Your task to perform on an android device: What's the news in Japan? Image 0: 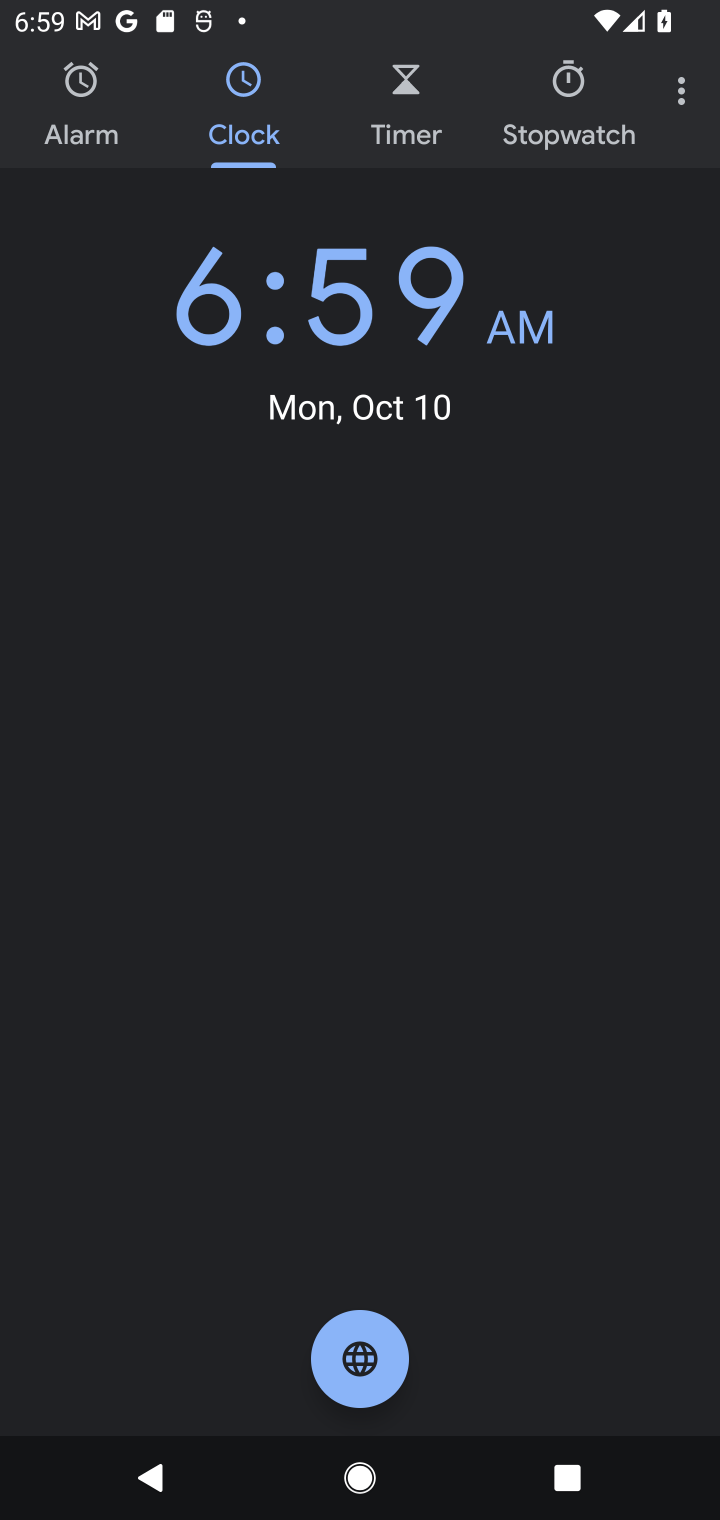
Step 0: press home button
Your task to perform on an android device: What's the news in Japan? Image 1: 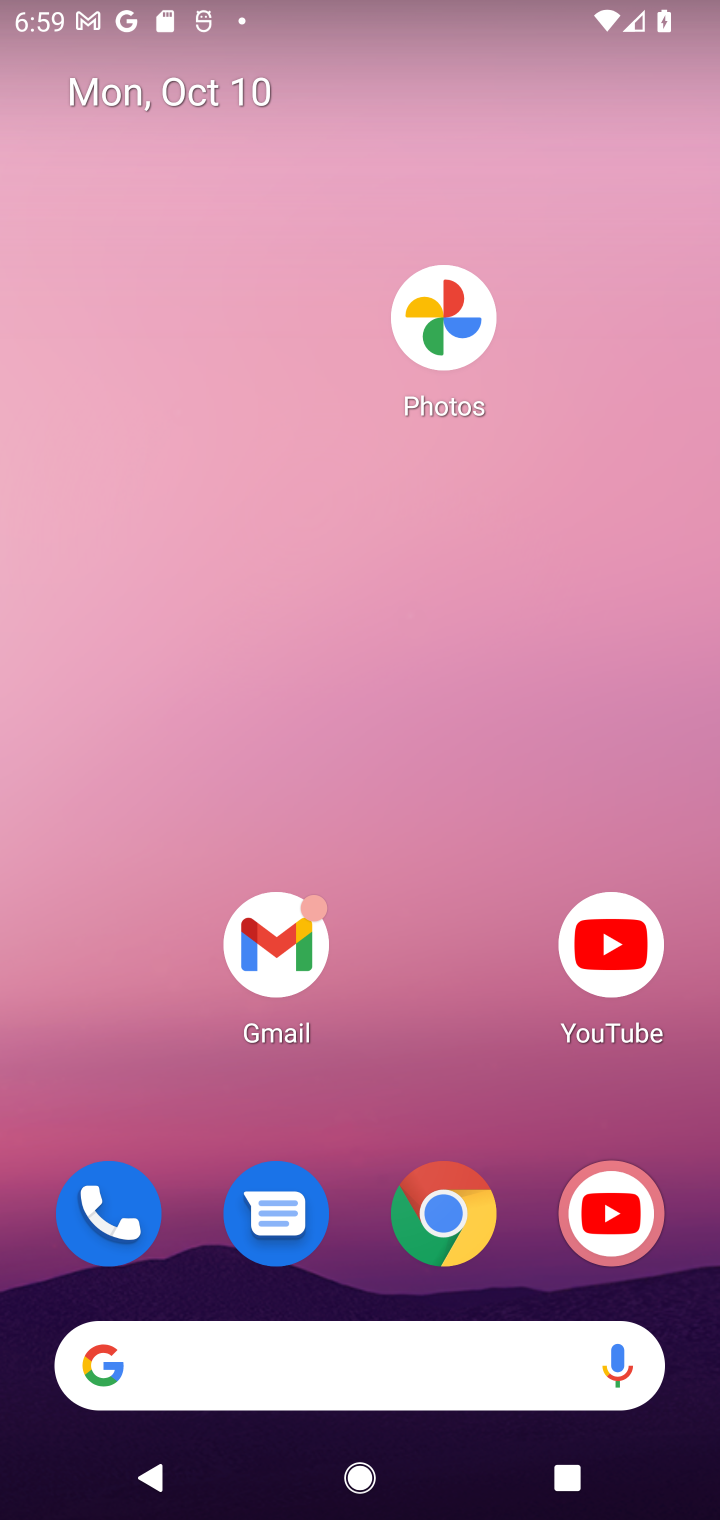
Step 1: click (315, 1377)
Your task to perform on an android device: What's the news in Japan? Image 2: 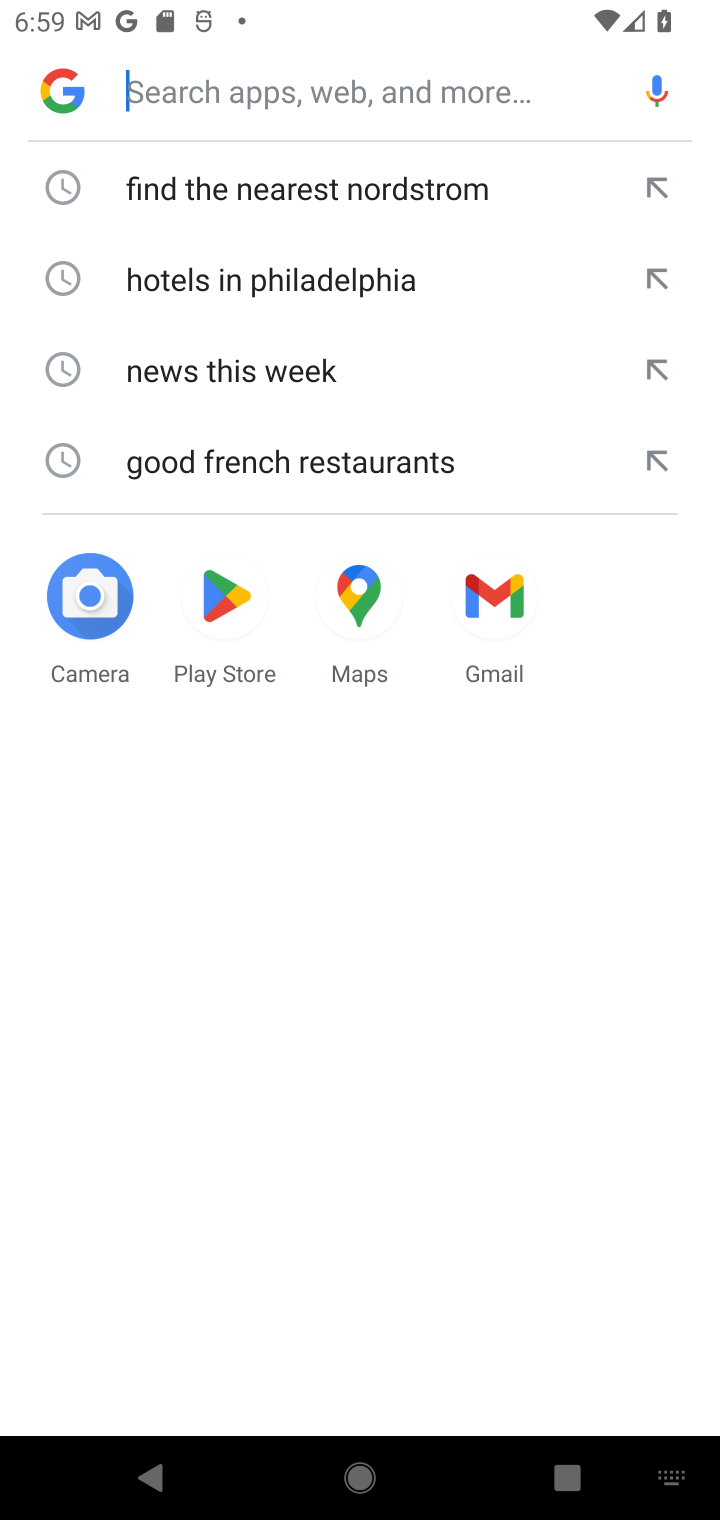
Step 2: type "news in Japan"
Your task to perform on an android device: What's the news in Japan? Image 3: 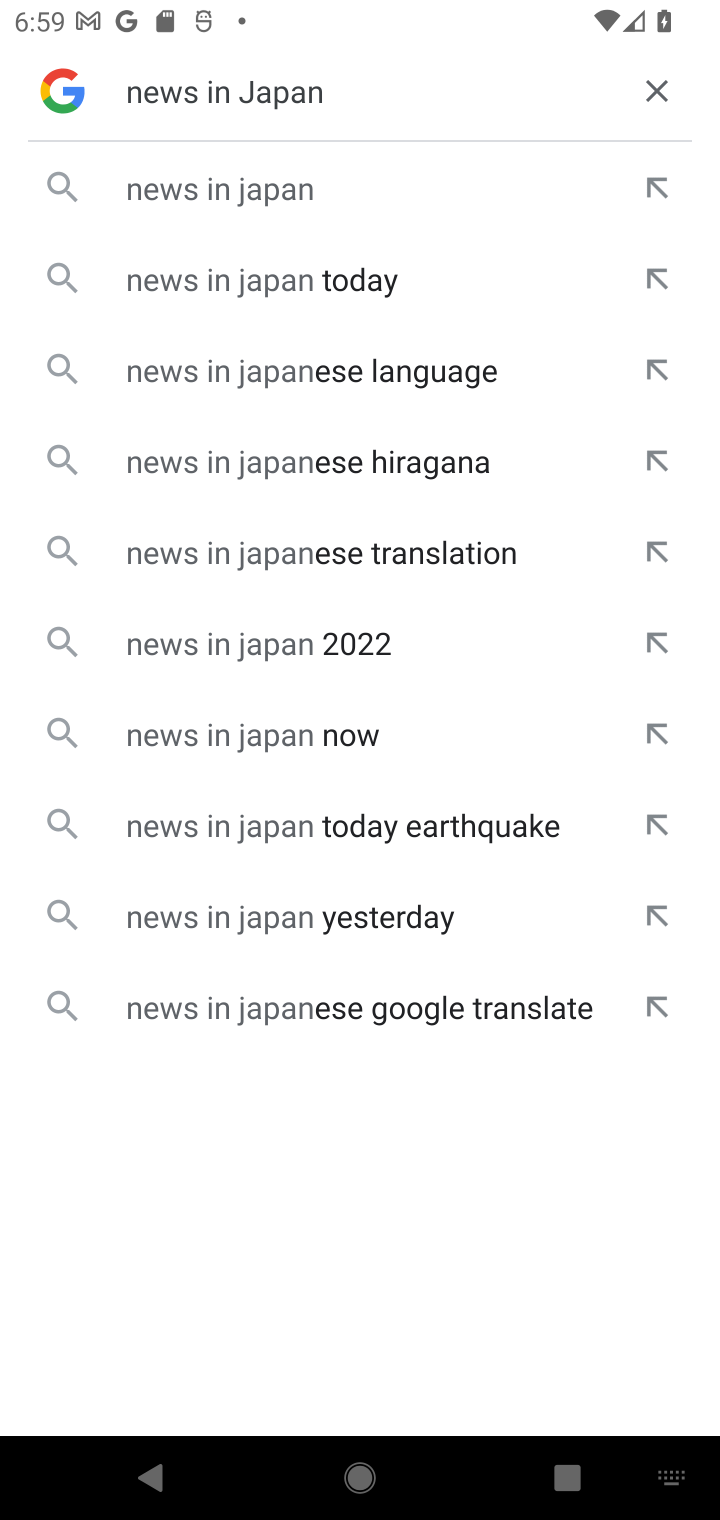
Step 3: click (240, 208)
Your task to perform on an android device: What's the news in Japan? Image 4: 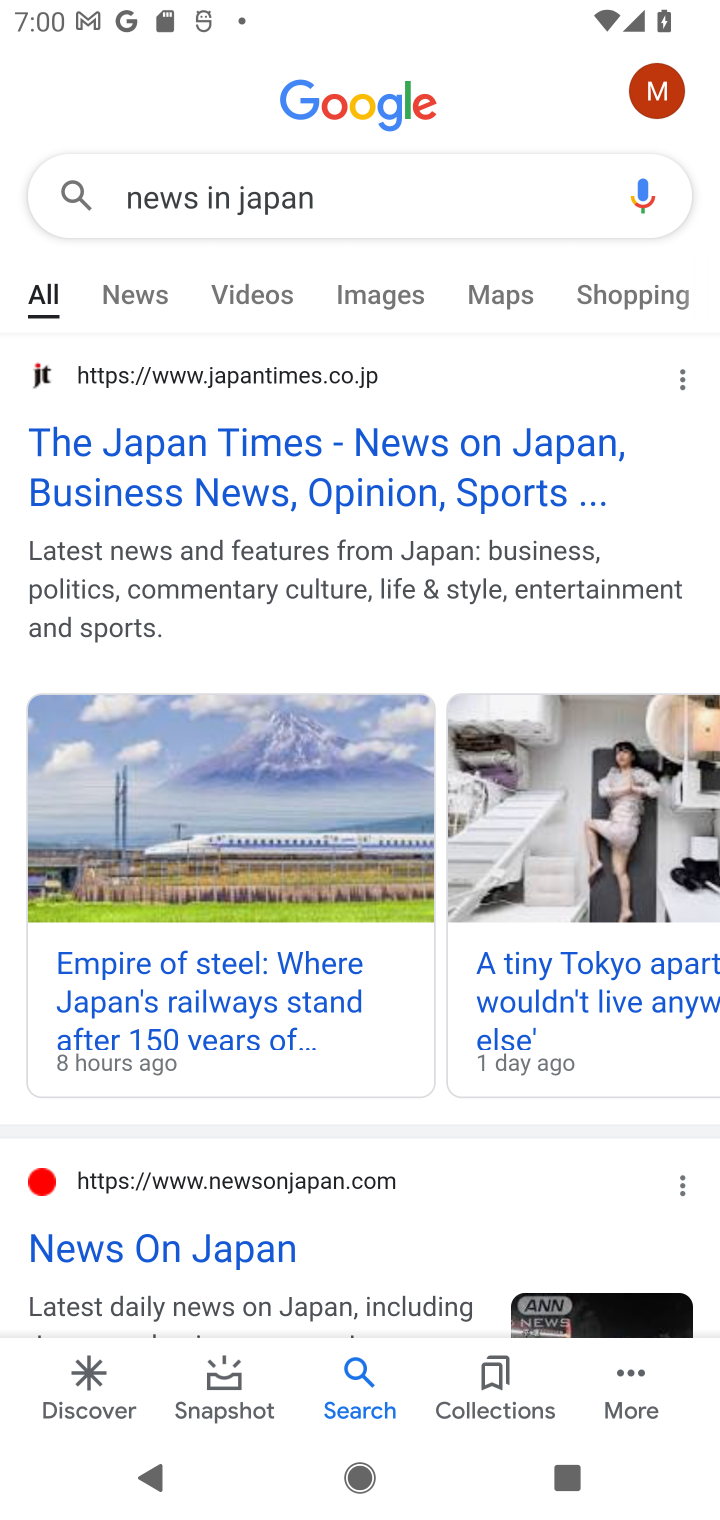
Step 4: click (140, 273)
Your task to perform on an android device: What's the news in Japan? Image 5: 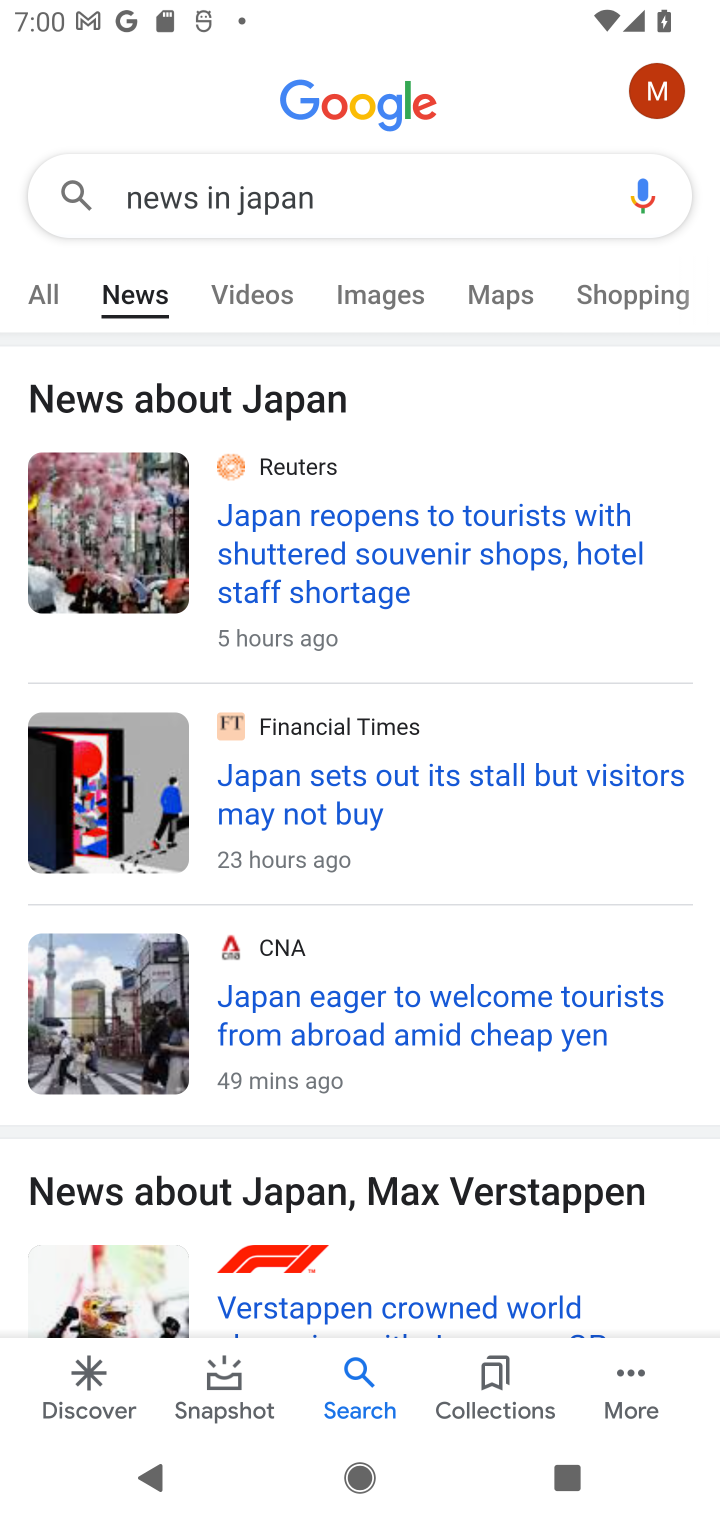
Step 5: task complete